Your task to perform on an android device: Search for seafood restaurants on Google Maps Image 0: 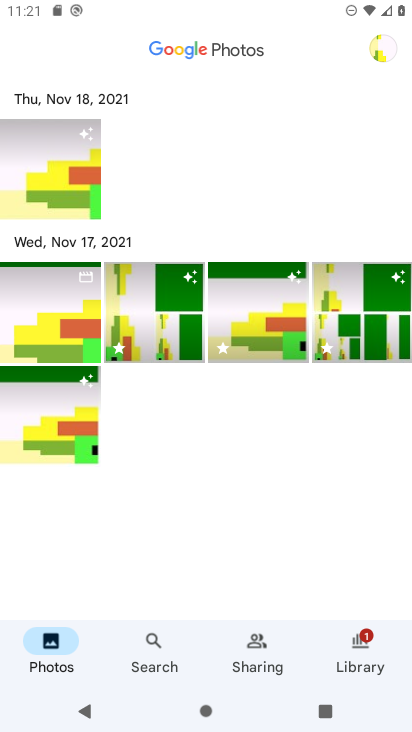
Step 0: press home button
Your task to perform on an android device: Search for seafood restaurants on Google Maps Image 1: 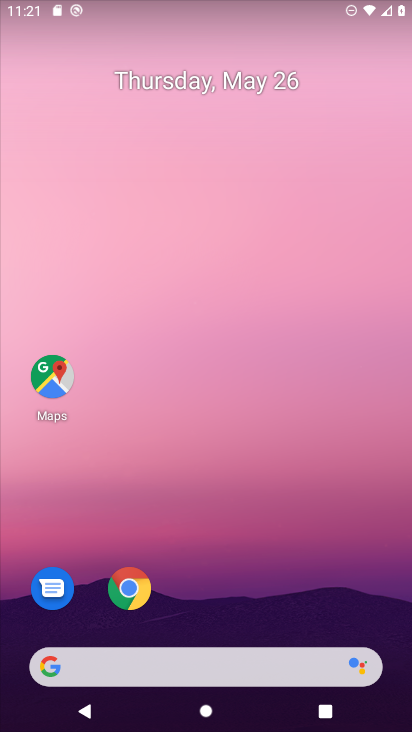
Step 1: click (49, 380)
Your task to perform on an android device: Search for seafood restaurants on Google Maps Image 2: 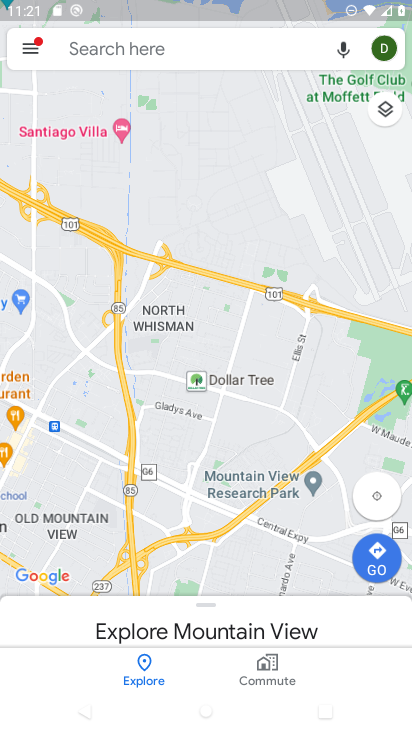
Step 2: click (98, 42)
Your task to perform on an android device: Search for seafood restaurants on Google Maps Image 3: 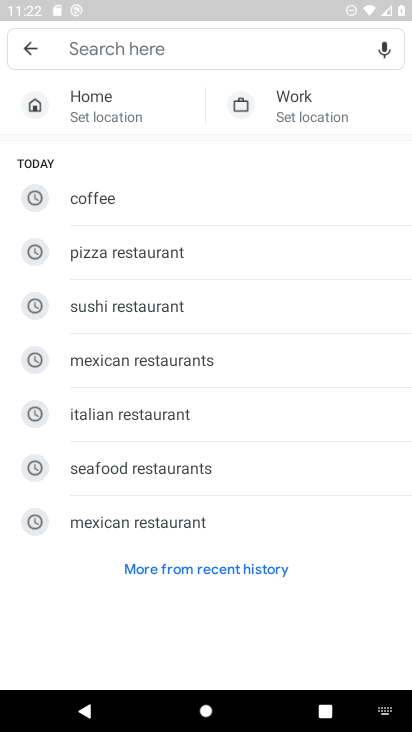
Step 3: type "seafood restaurants"
Your task to perform on an android device: Search for seafood restaurants on Google Maps Image 4: 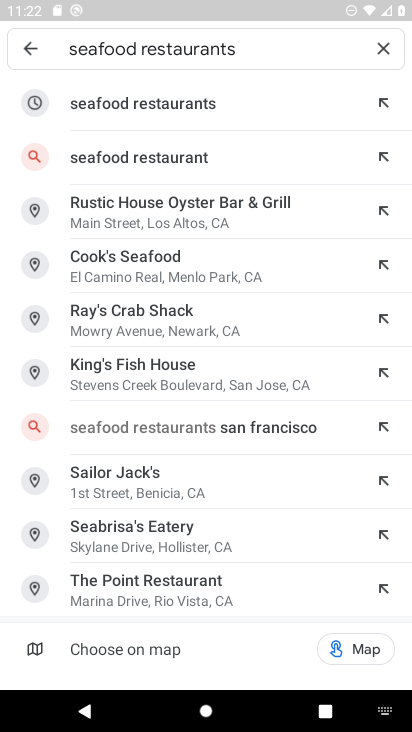
Step 4: click (161, 93)
Your task to perform on an android device: Search for seafood restaurants on Google Maps Image 5: 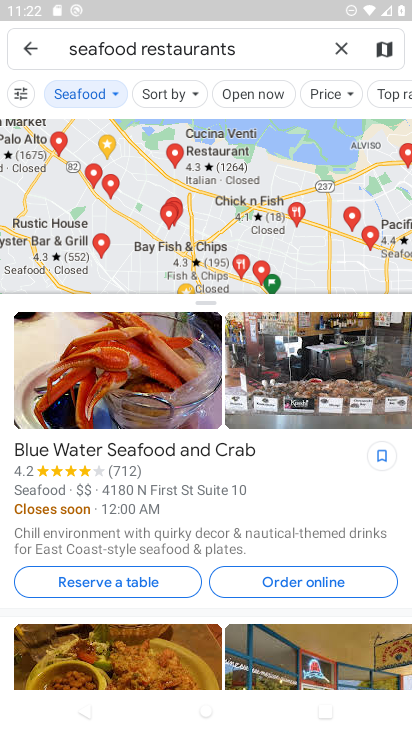
Step 5: task complete